Your task to perform on an android device: open app "Facebook" (install if not already installed) Image 0: 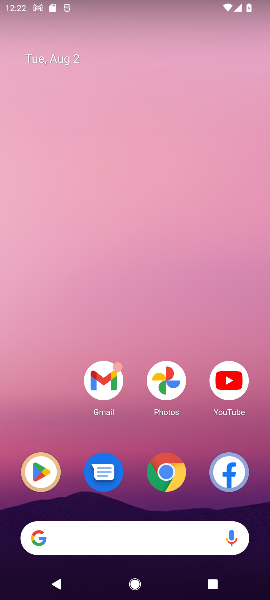
Step 0: click (28, 471)
Your task to perform on an android device: open app "Facebook" (install if not already installed) Image 1: 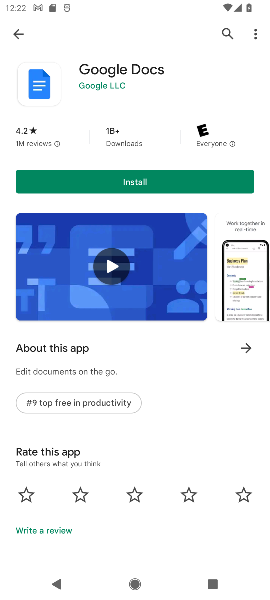
Step 1: click (227, 26)
Your task to perform on an android device: open app "Facebook" (install if not already installed) Image 2: 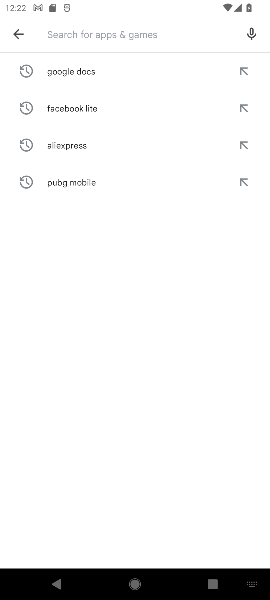
Step 2: type "facebook"
Your task to perform on an android device: open app "Facebook" (install if not already installed) Image 3: 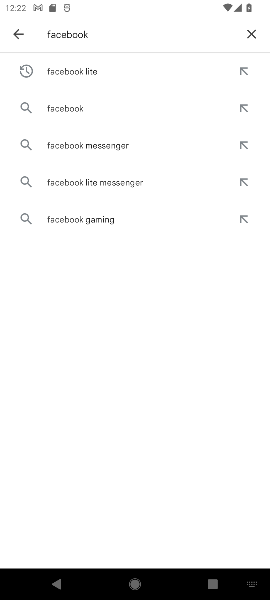
Step 3: click (98, 108)
Your task to perform on an android device: open app "Facebook" (install if not already installed) Image 4: 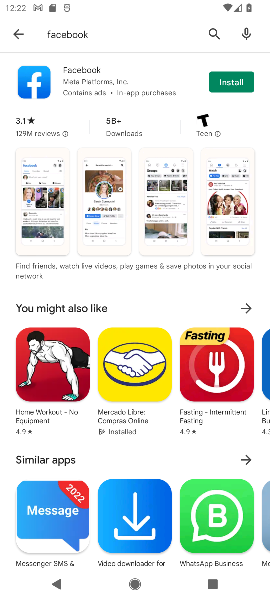
Step 4: click (106, 71)
Your task to perform on an android device: open app "Facebook" (install if not already installed) Image 5: 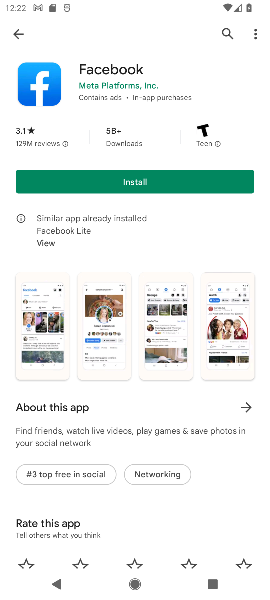
Step 5: click (154, 177)
Your task to perform on an android device: open app "Facebook" (install if not already installed) Image 6: 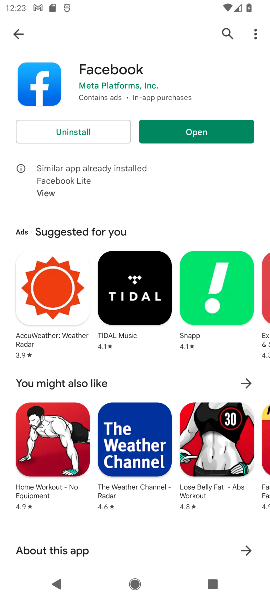
Step 6: click (187, 131)
Your task to perform on an android device: open app "Facebook" (install if not already installed) Image 7: 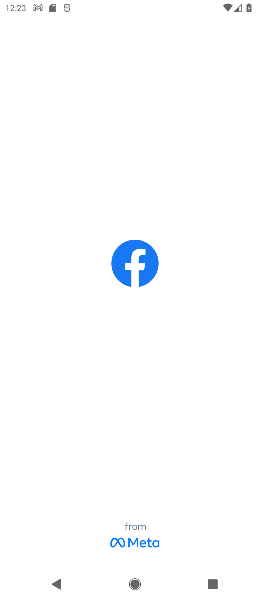
Step 7: task complete